Your task to perform on an android device: Show me recent news Image 0: 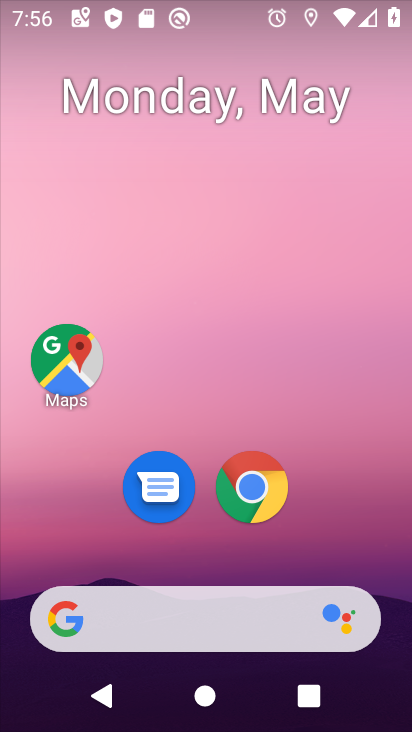
Step 0: click (85, 618)
Your task to perform on an android device: Show me recent news Image 1: 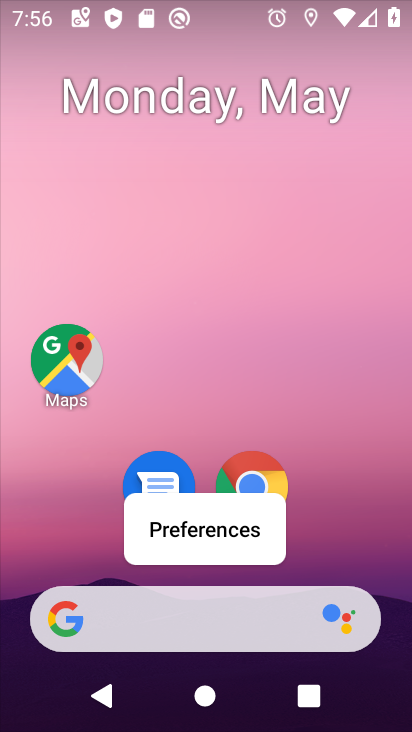
Step 1: click (78, 606)
Your task to perform on an android device: Show me recent news Image 2: 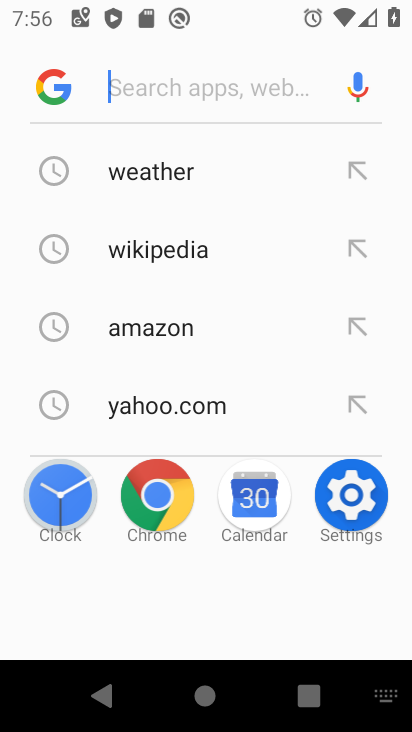
Step 2: type "recent news"
Your task to perform on an android device: Show me recent news Image 3: 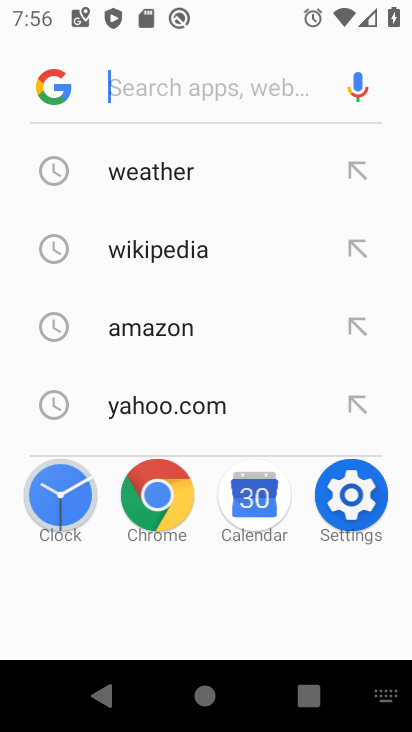
Step 3: click (206, 87)
Your task to perform on an android device: Show me recent news Image 4: 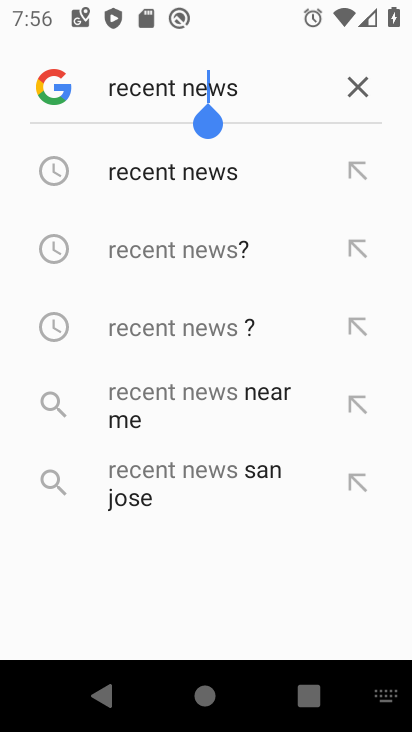
Step 4: click (184, 173)
Your task to perform on an android device: Show me recent news Image 5: 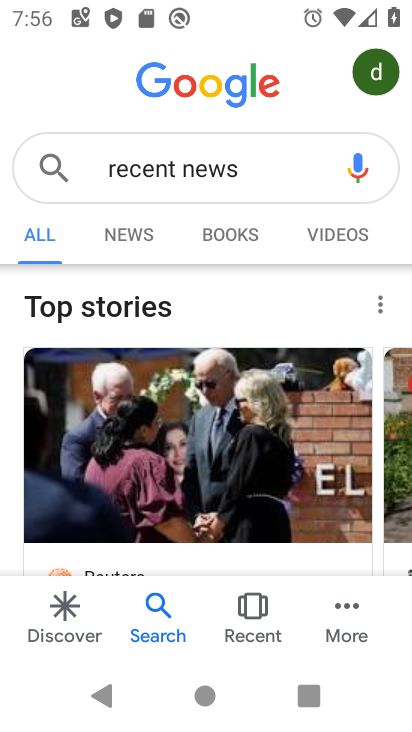
Step 5: task complete